Your task to perform on an android device: When is my next appointment? Image 0: 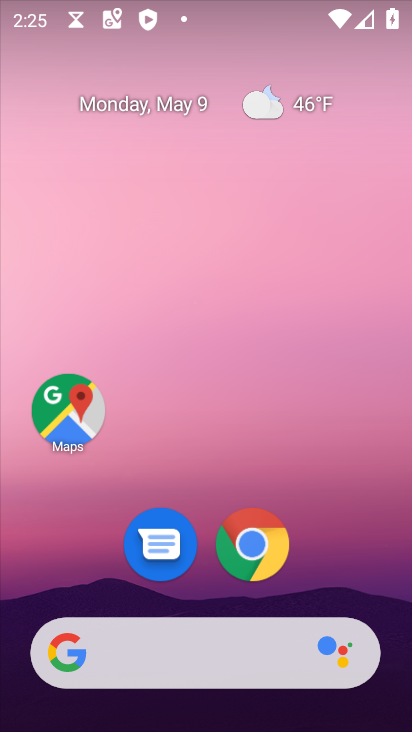
Step 0: drag from (225, 433) to (159, 119)
Your task to perform on an android device: When is my next appointment? Image 1: 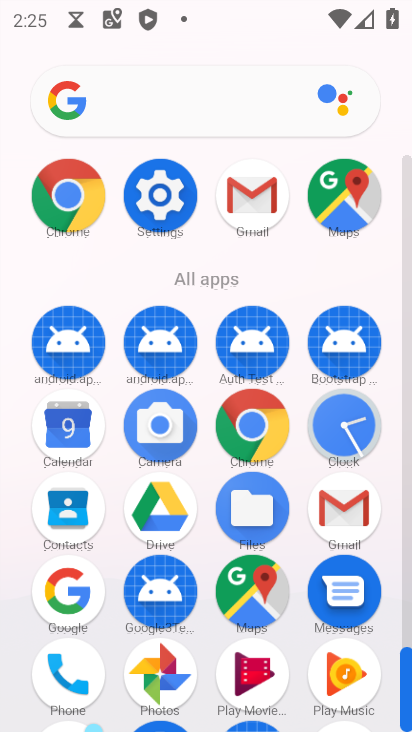
Step 1: click (62, 413)
Your task to perform on an android device: When is my next appointment? Image 2: 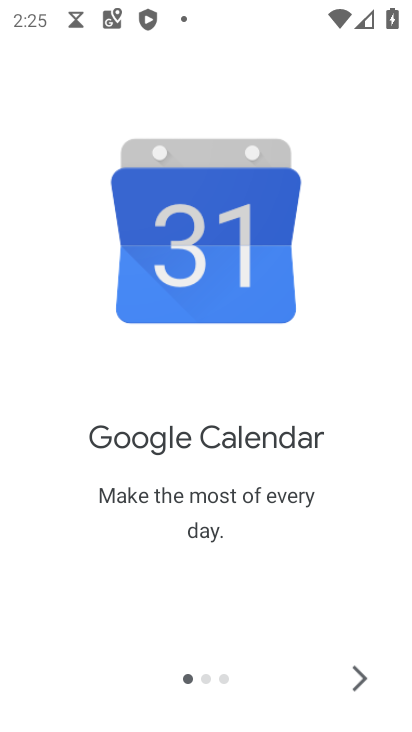
Step 2: click (368, 683)
Your task to perform on an android device: When is my next appointment? Image 3: 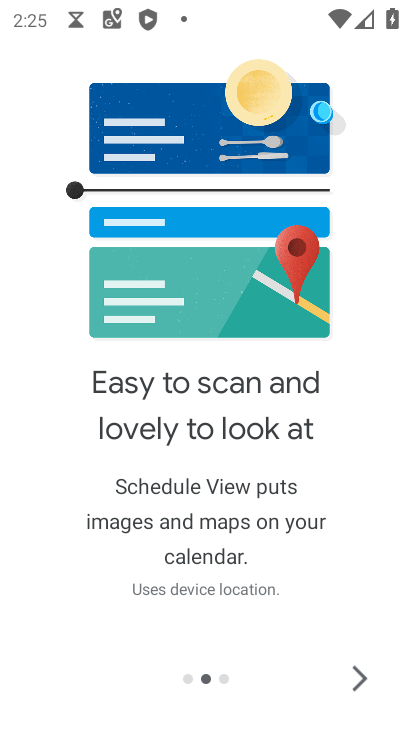
Step 3: click (358, 685)
Your task to perform on an android device: When is my next appointment? Image 4: 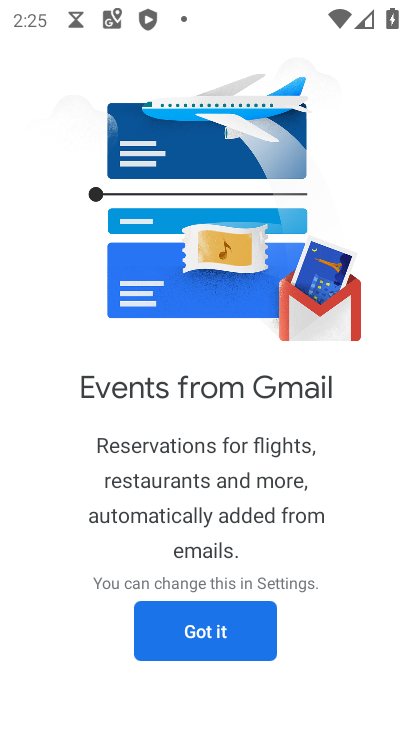
Step 4: click (208, 633)
Your task to perform on an android device: When is my next appointment? Image 5: 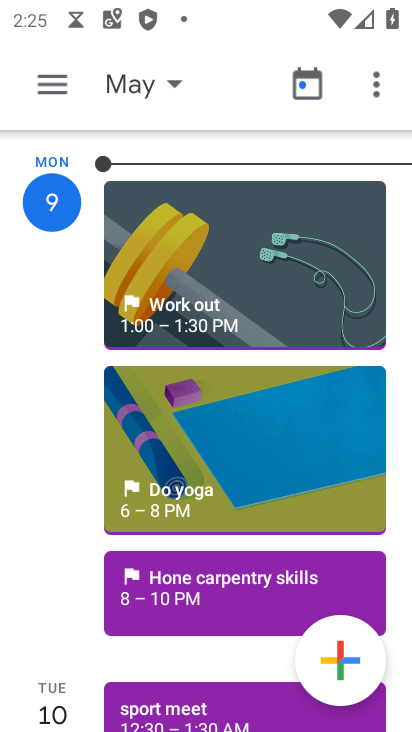
Step 5: click (188, 297)
Your task to perform on an android device: When is my next appointment? Image 6: 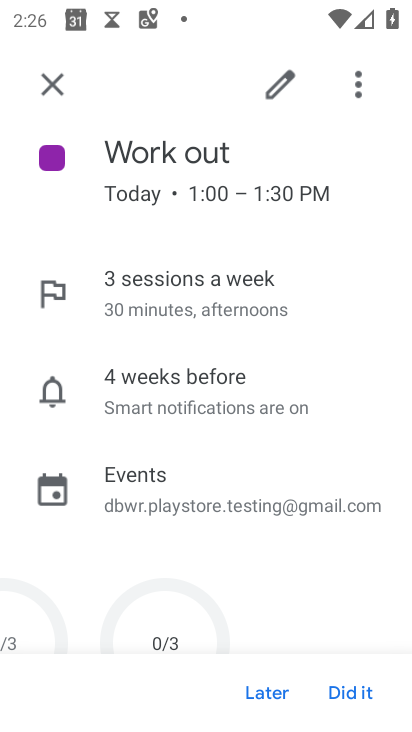
Step 6: click (55, 84)
Your task to perform on an android device: When is my next appointment? Image 7: 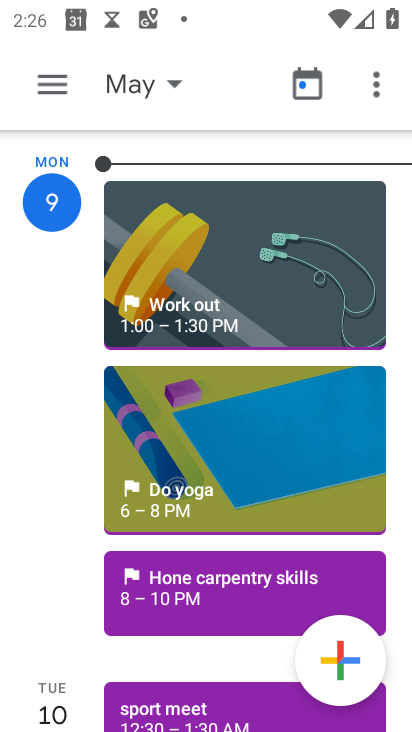
Step 7: drag from (203, 346) to (203, 473)
Your task to perform on an android device: When is my next appointment? Image 8: 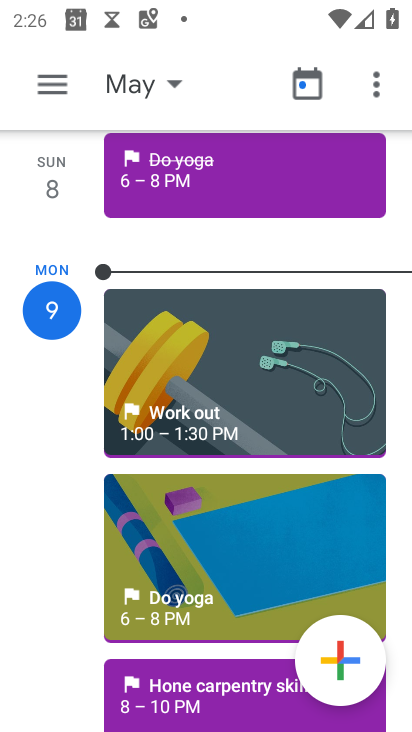
Step 8: click (203, 473)
Your task to perform on an android device: When is my next appointment? Image 9: 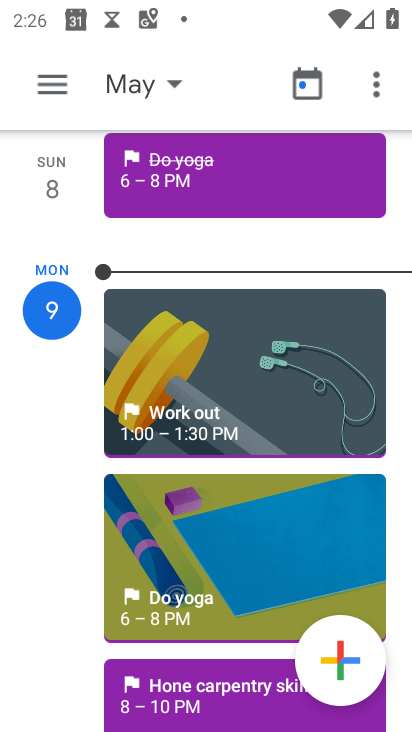
Step 9: task complete